Your task to perform on an android device: toggle priority inbox in the gmail app Image 0: 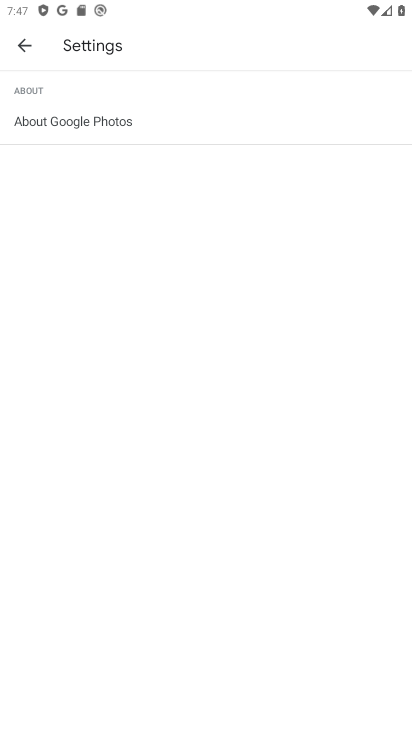
Step 0: press home button
Your task to perform on an android device: toggle priority inbox in the gmail app Image 1: 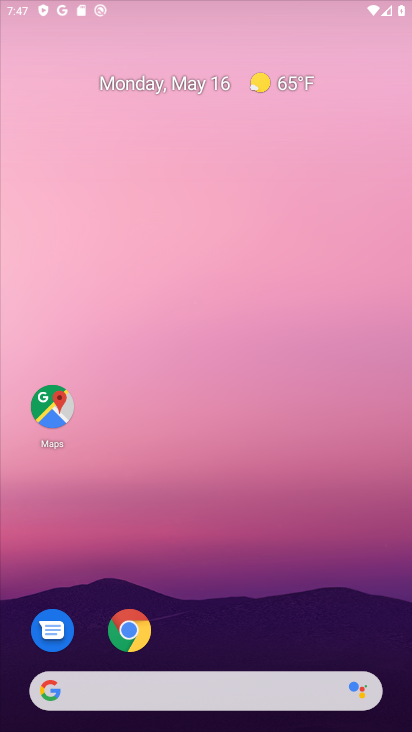
Step 1: drag from (204, 647) to (211, 249)
Your task to perform on an android device: toggle priority inbox in the gmail app Image 2: 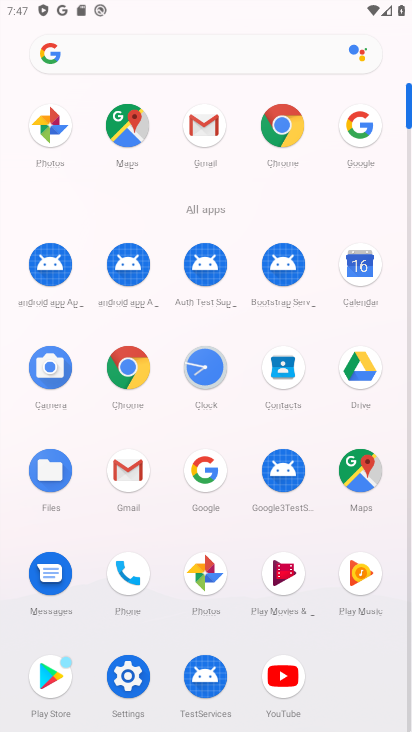
Step 2: click (202, 133)
Your task to perform on an android device: toggle priority inbox in the gmail app Image 3: 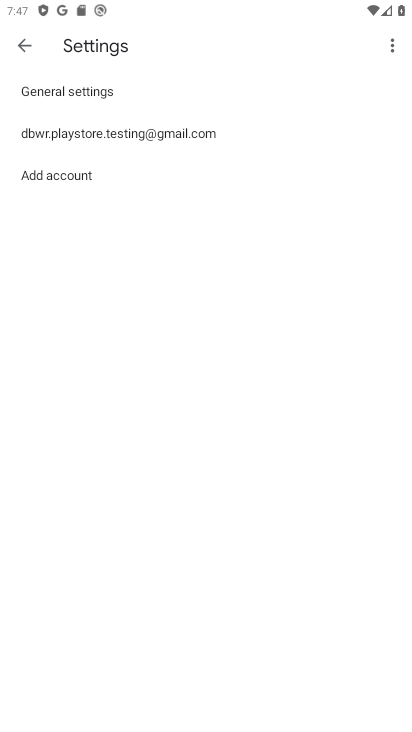
Step 3: click (63, 133)
Your task to perform on an android device: toggle priority inbox in the gmail app Image 4: 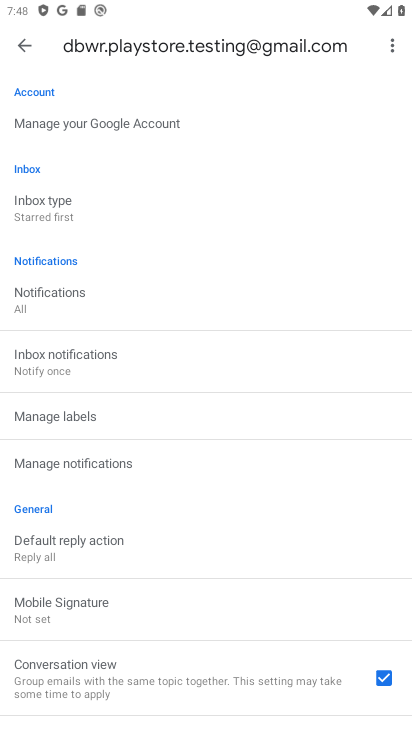
Step 4: drag from (179, 567) to (200, 330)
Your task to perform on an android device: toggle priority inbox in the gmail app Image 5: 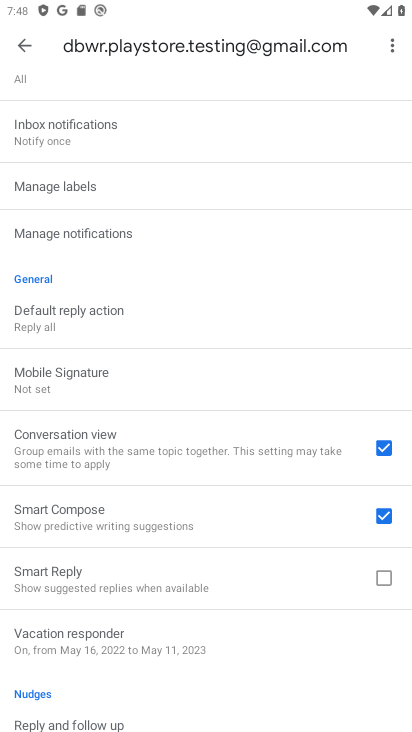
Step 5: drag from (170, 213) to (168, 576)
Your task to perform on an android device: toggle priority inbox in the gmail app Image 6: 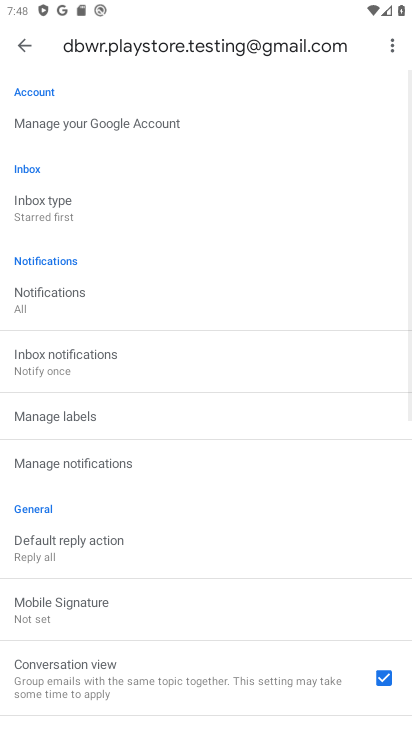
Step 6: click (54, 204)
Your task to perform on an android device: toggle priority inbox in the gmail app Image 7: 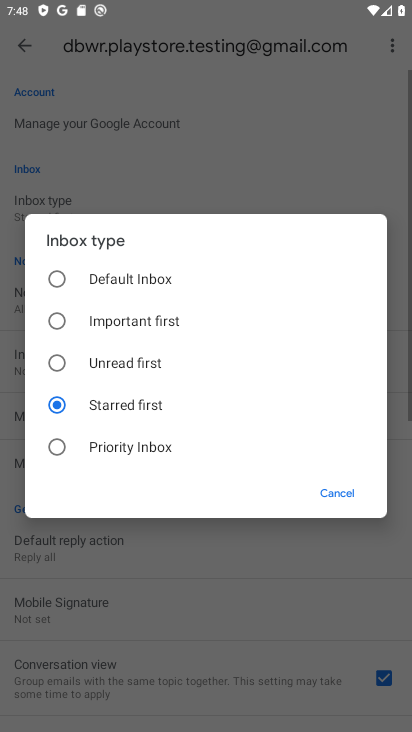
Step 7: click (108, 448)
Your task to perform on an android device: toggle priority inbox in the gmail app Image 8: 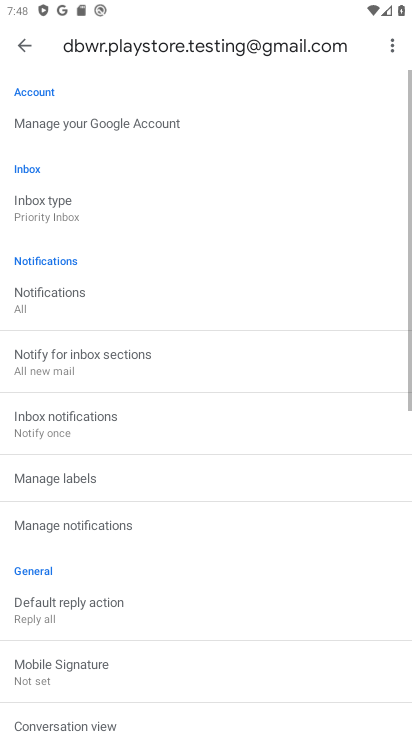
Step 8: task complete